Your task to perform on an android device: toggle sleep mode Image 0: 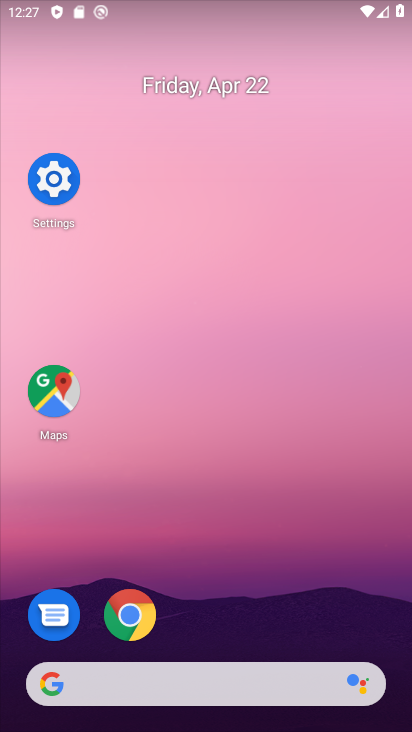
Step 0: click (52, 197)
Your task to perform on an android device: toggle sleep mode Image 1: 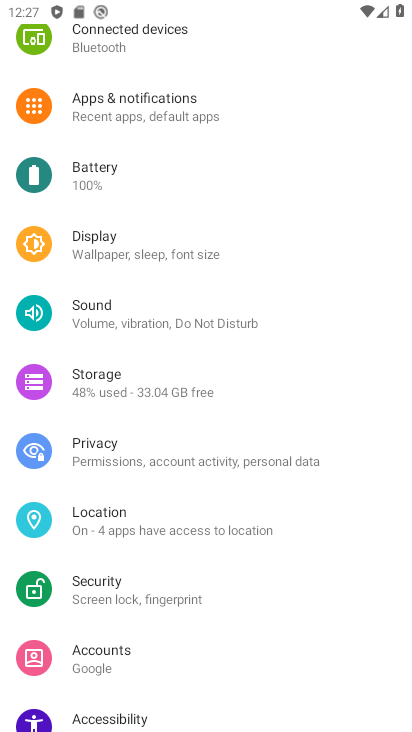
Step 1: click (151, 238)
Your task to perform on an android device: toggle sleep mode Image 2: 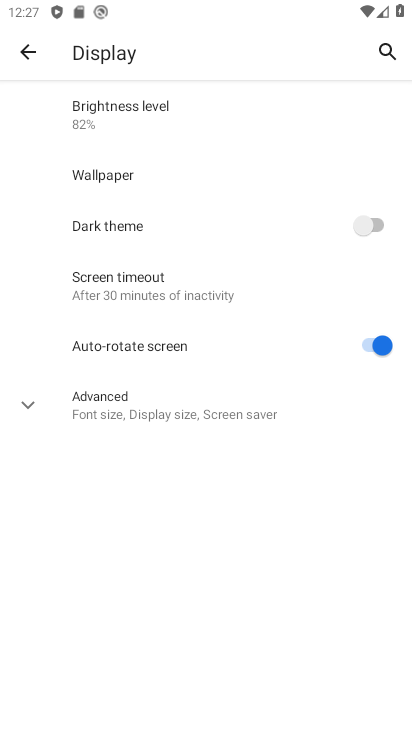
Step 2: click (175, 277)
Your task to perform on an android device: toggle sleep mode Image 3: 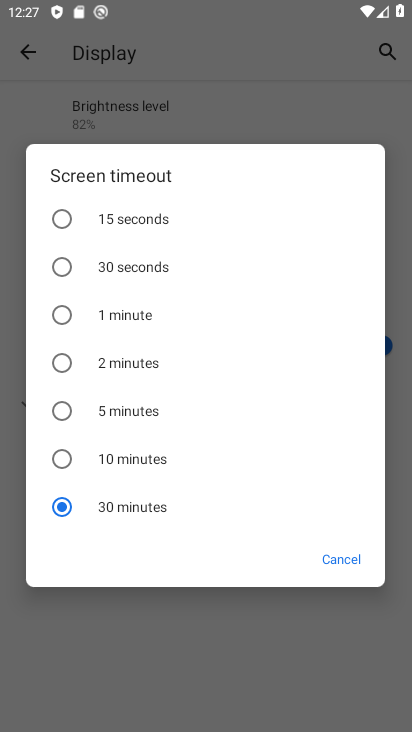
Step 3: click (161, 272)
Your task to perform on an android device: toggle sleep mode Image 4: 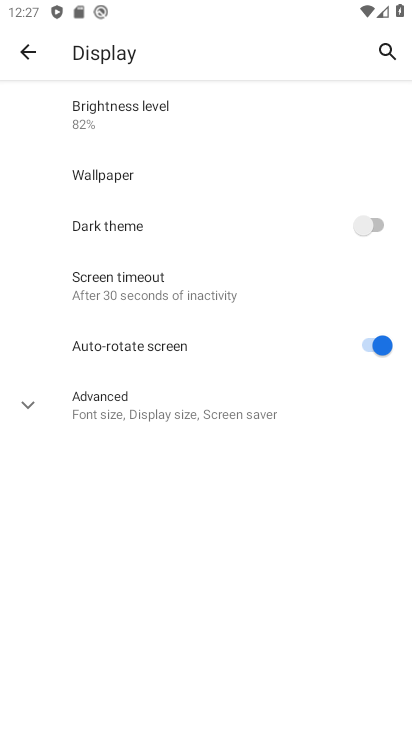
Step 4: task complete